Your task to perform on an android device: Open the Play Movies app and select the watchlist tab. Image 0: 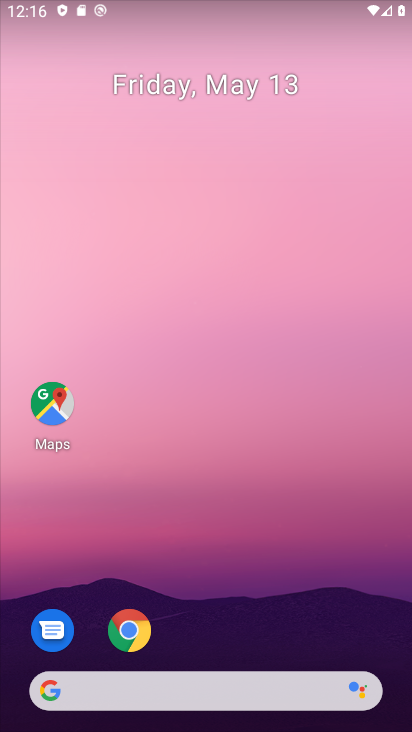
Step 0: drag from (210, 705) to (338, 182)
Your task to perform on an android device: Open the Play Movies app and select the watchlist tab. Image 1: 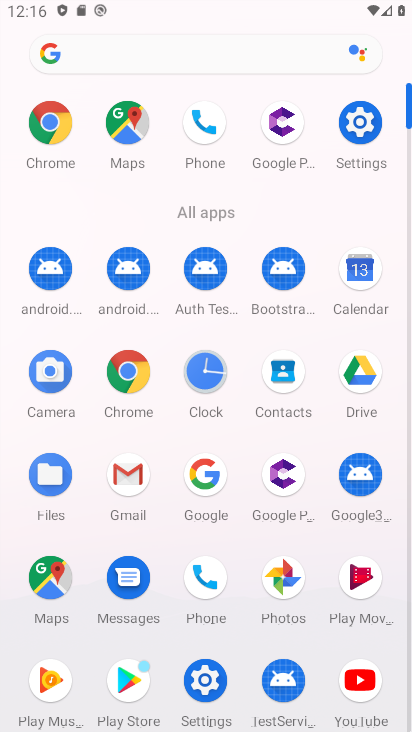
Step 1: click (357, 582)
Your task to perform on an android device: Open the Play Movies app and select the watchlist tab. Image 2: 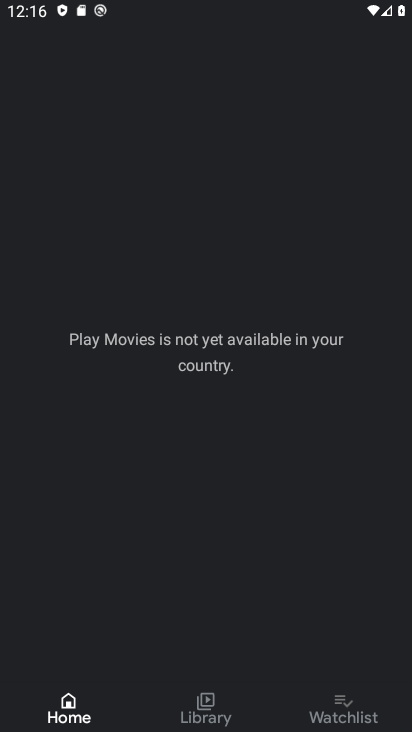
Step 2: click (347, 706)
Your task to perform on an android device: Open the Play Movies app and select the watchlist tab. Image 3: 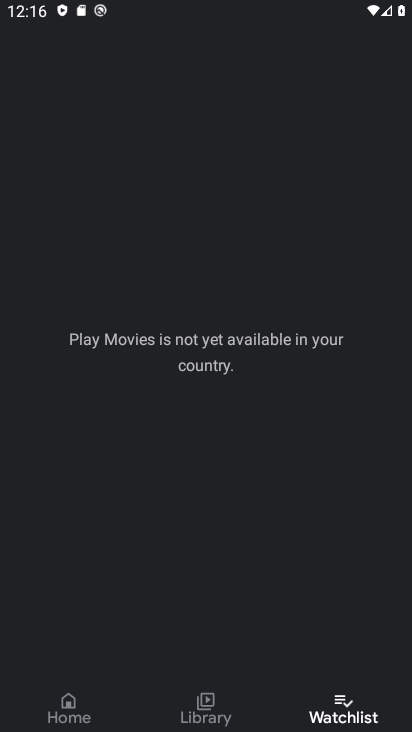
Step 3: task complete